Your task to perform on an android device: Open settings on Google Maps Image 0: 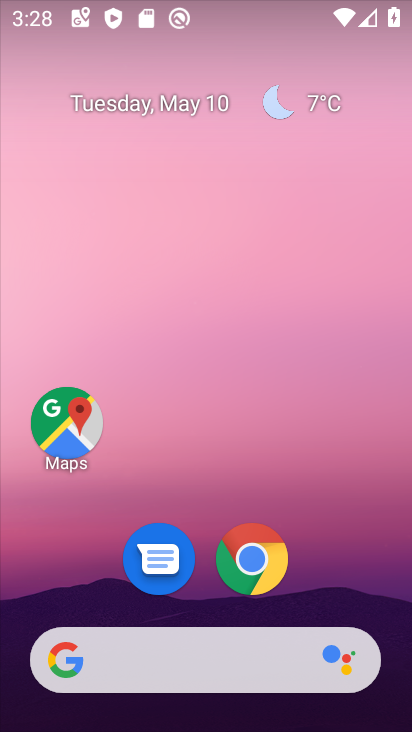
Step 0: click (58, 424)
Your task to perform on an android device: Open settings on Google Maps Image 1: 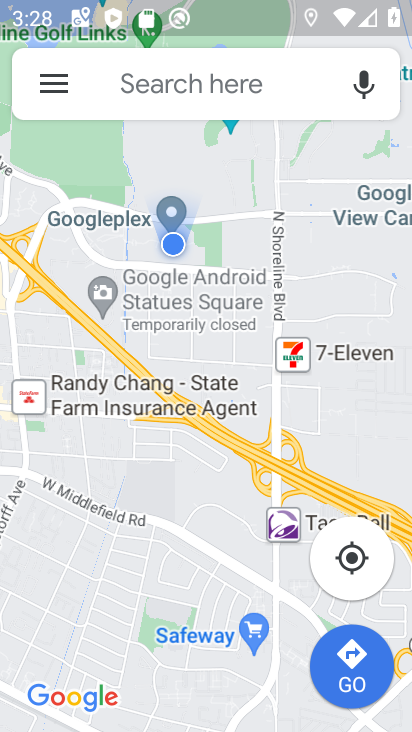
Step 1: click (55, 84)
Your task to perform on an android device: Open settings on Google Maps Image 2: 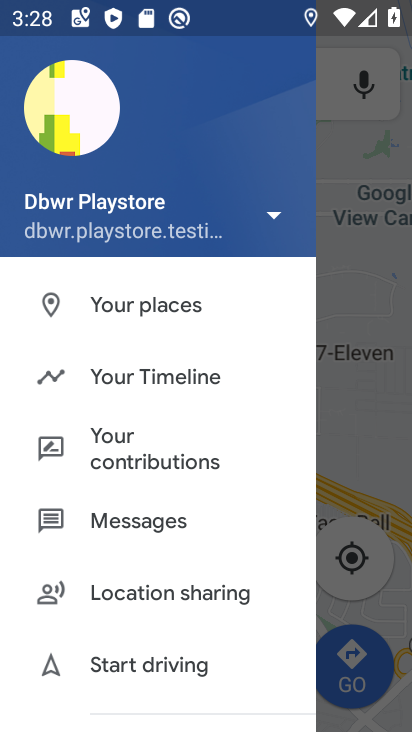
Step 2: drag from (228, 639) to (207, 435)
Your task to perform on an android device: Open settings on Google Maps Image 3: 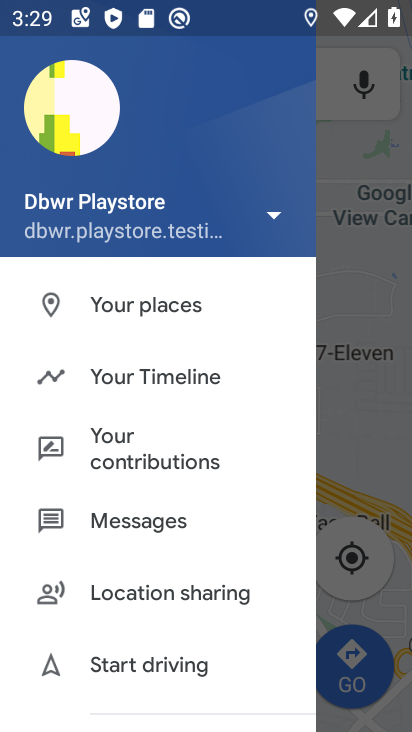
Step 3: drag from (179, 521) to (206, 227)
Your task to perform on an android device: Open settings on Google Maps Image 4: 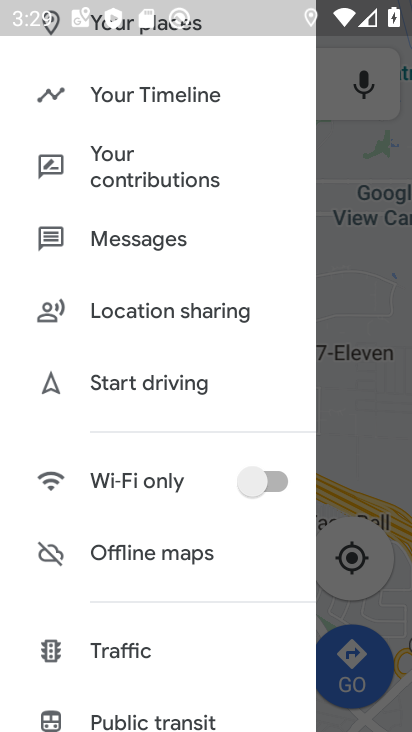
Step 4: drag from (183, 620) to (199, 270)
Your task to perform on an android device: Open settings on Google Maps Image 5: 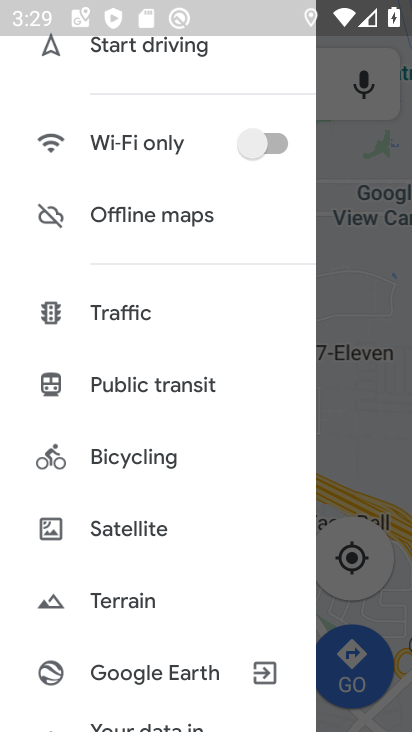
Step 5: drag from (156, 633) to (169, 242)
Your task to perform on an android device: Open settings on Google Maps Image 6: 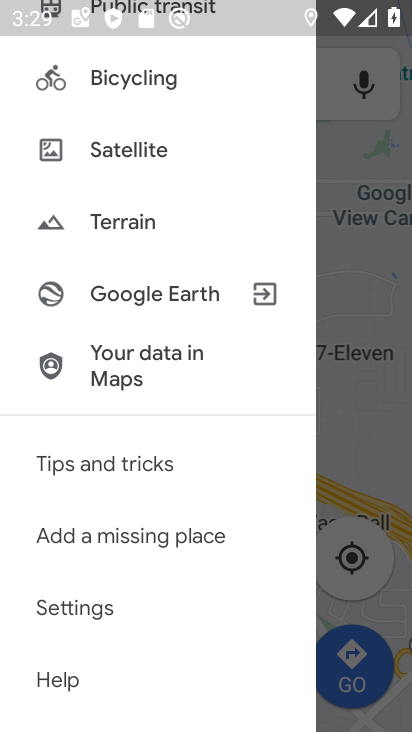
Step 6: click (97, 614)
Your task to perform on an android device: Open settings on Google Maps Image 7: 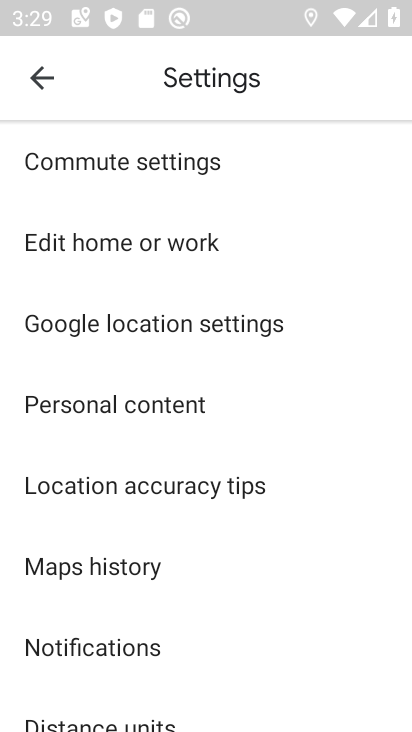
Step 7: task complete